Your task to perform on an android device: change the clock display to analog Image 0: 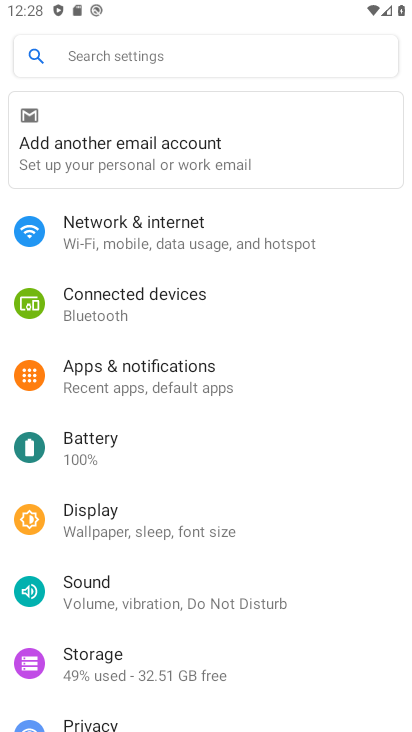
Step 0: press home button
Your task to perform on an android device: change the clock display to analog Image 1: 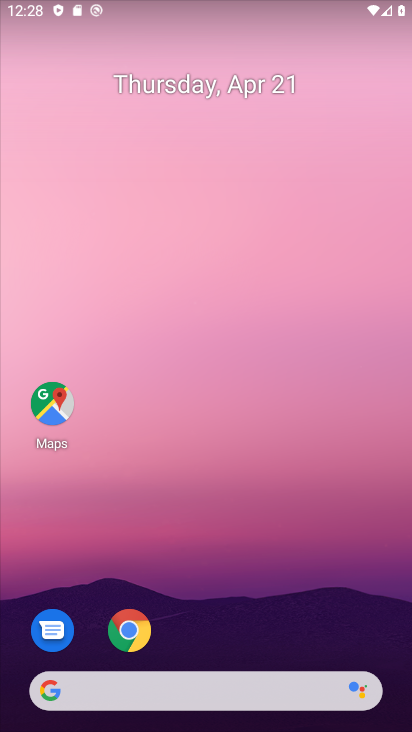
Step 1: drag from (259, 533) to (212, 8)
Your task to perform on an android device: change the clock display to analog Image 2: 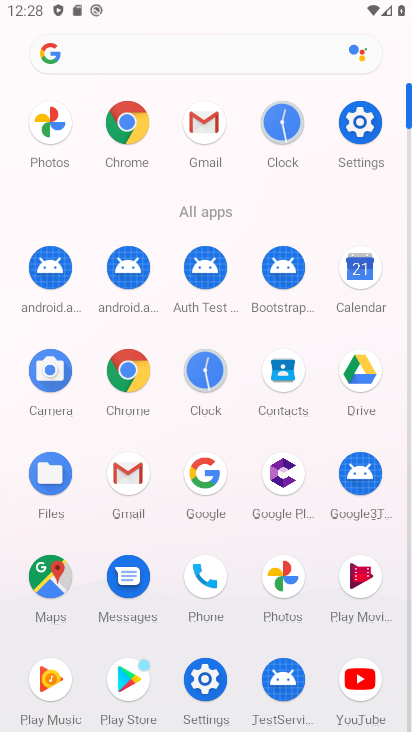
Step 2: click (280, 144)
Your task to perform on an android device: change the clock display to analog Image 3: 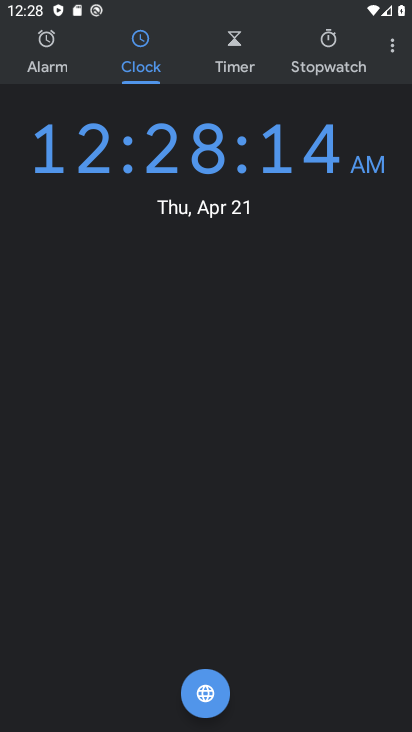
Step 3: click (402, 53)
Your task to perform on an android device: change the clock display to analog Image 4: 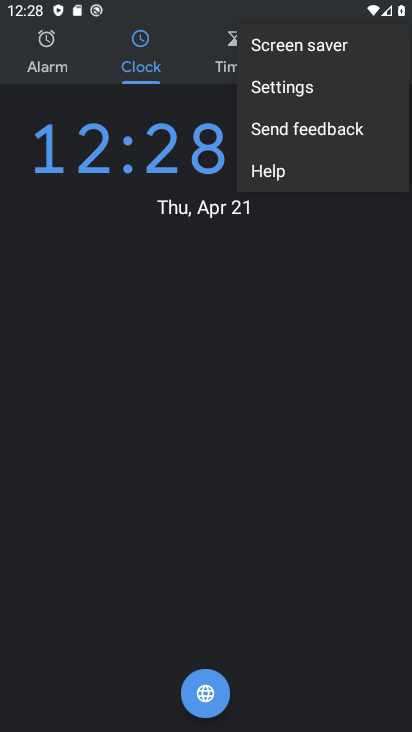
Step 4: click (326, 90)
Your task to perform on an android device: change the clock display to analog Image 5: 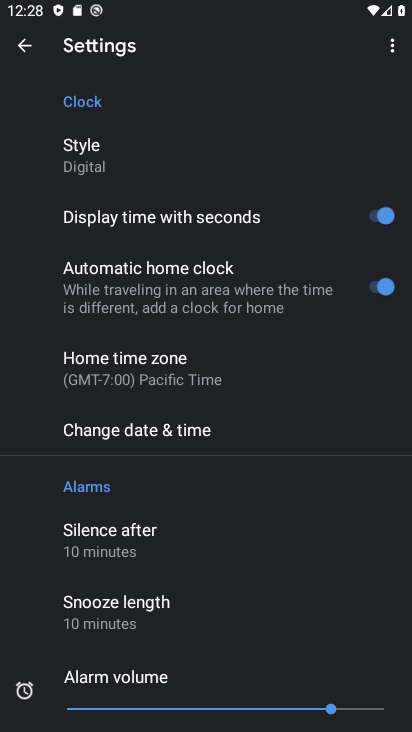
Step 5: click (138, 157)
Your task to perform on an android device: change the clock display to analog Image 6: 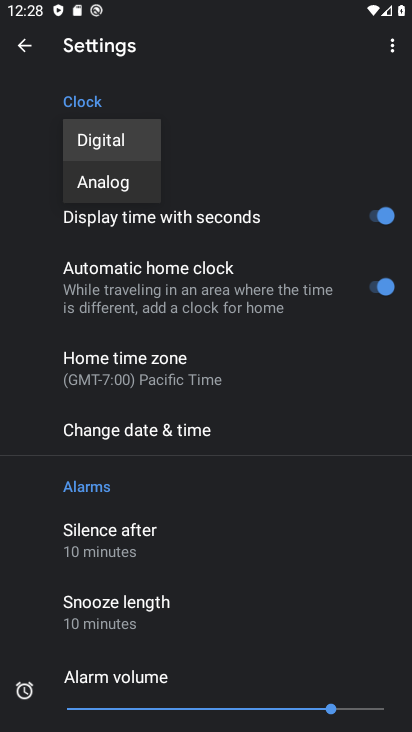
Step 6: click (129, 177)
Your task to perform on an android device: change the clock display to analog Image 7: 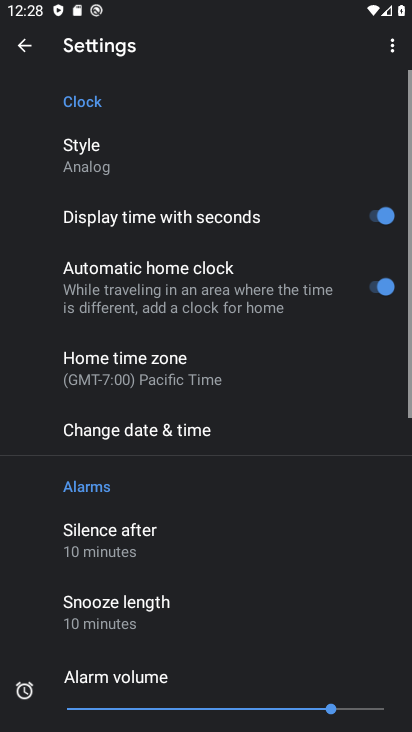
Step 7: task complete